Your task to perform on an android device: Open the stopwatch Image 0: 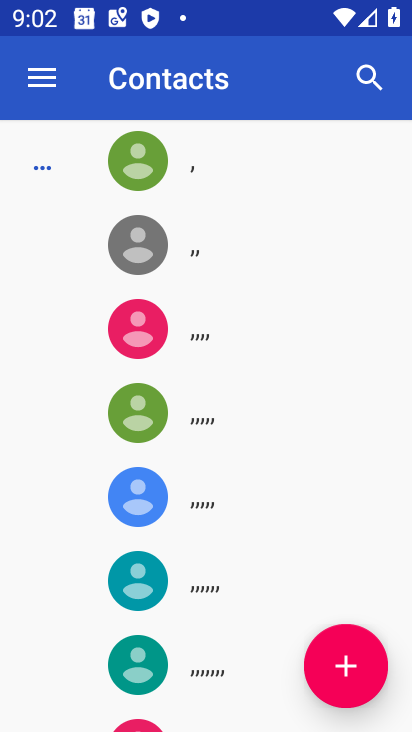
Step 0: press back button
Your task to perform on an android device: Open the stopwatch Image 1: 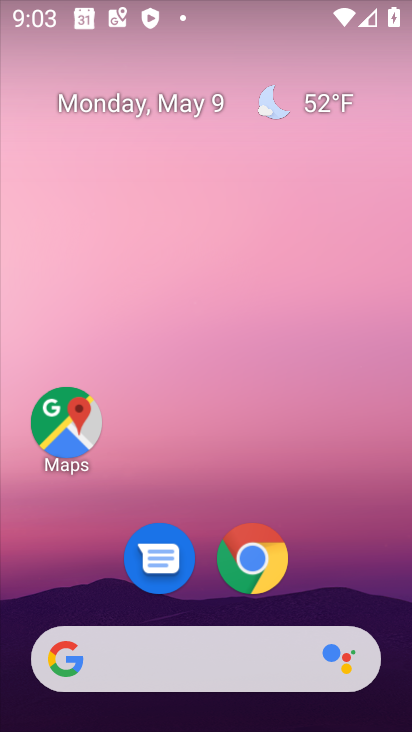
Step 1: drag from (200, 609) to (285, 96)
Your task to perform on an android device: Open the stopwatch Image 2: 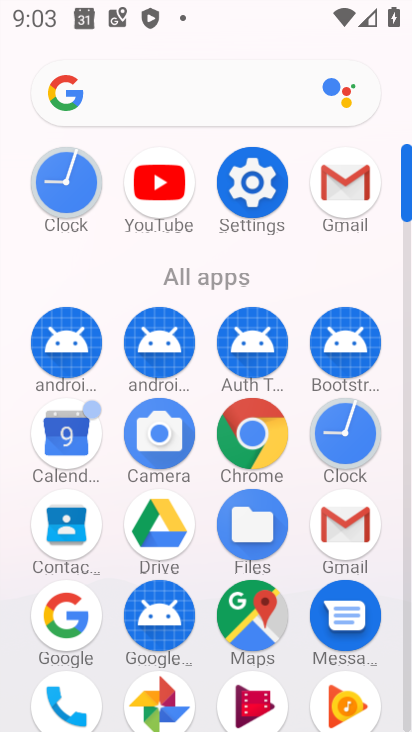
Step 2: click (334, 428)
Your task to perform on an android device: Open the stopwatch Image 3: 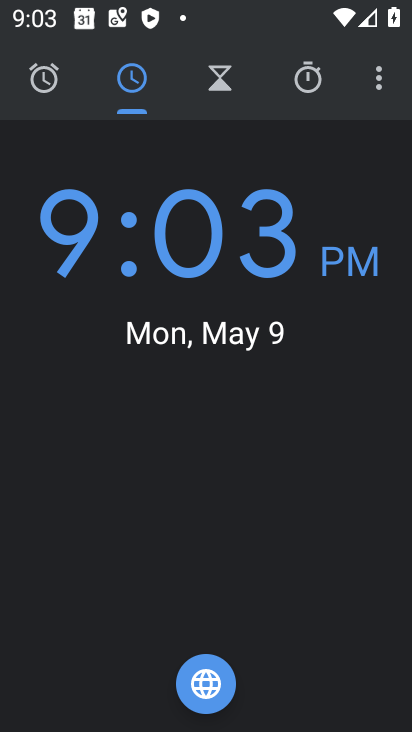
Step 3: click (310, 76)
Your task to perform on an android device: Open the stopwatch Image 4: 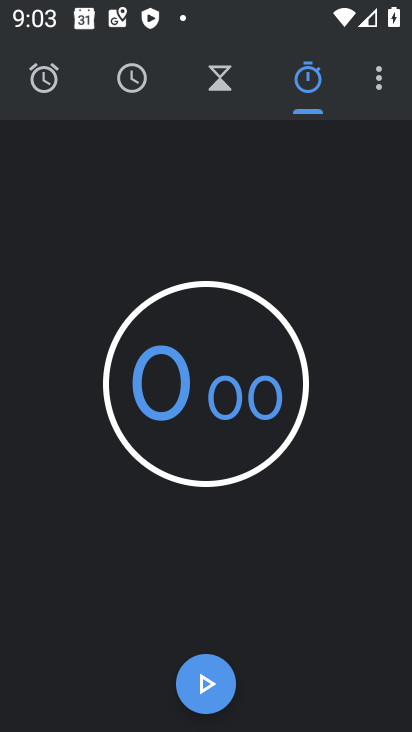
Step 4: click (219, 400)
Your task to perform on an android device: Open the stopwatch Image 5: 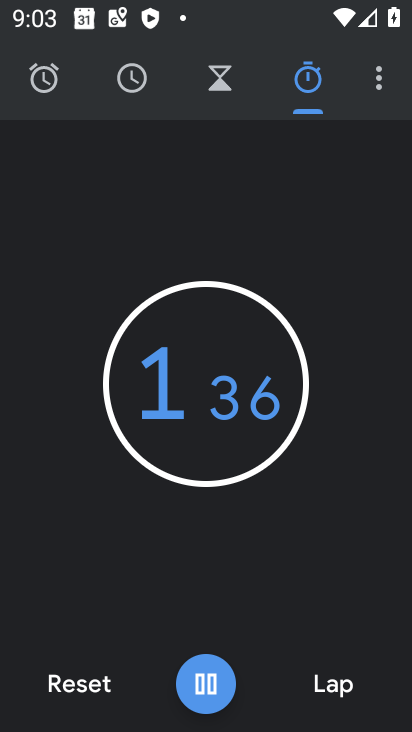
Step 5: click (219, 400)
Your task to perform on an android device: Open the stopwatch Image 6: 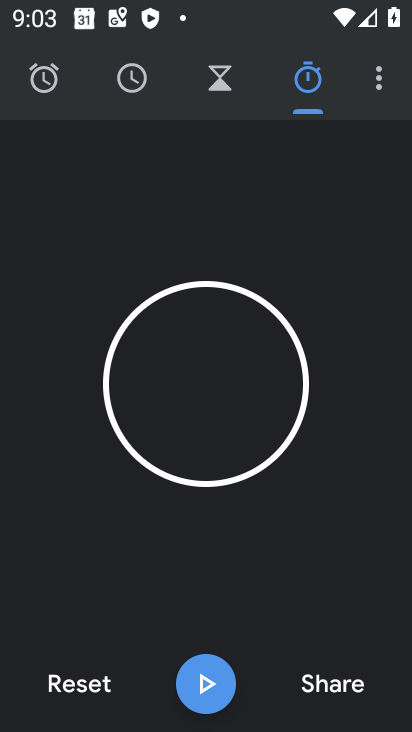
Step 6: task complete